Your task to perform on an android device: turn pop-ups on in chrome Image 0: 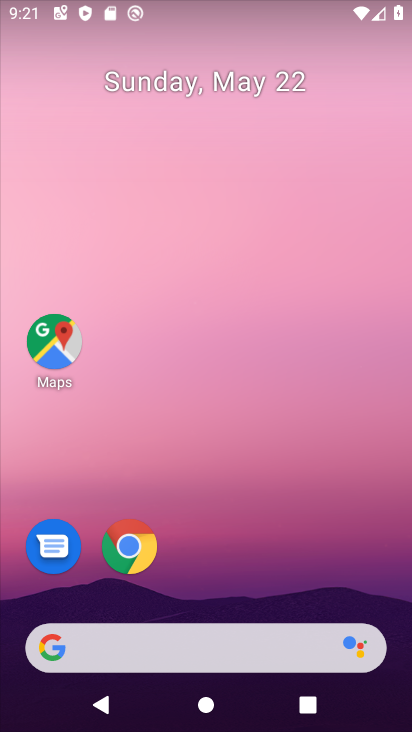
Step 0: click (183, 164)
Your task to perform on an android device: turn pop-ups on in chrome Image 1: 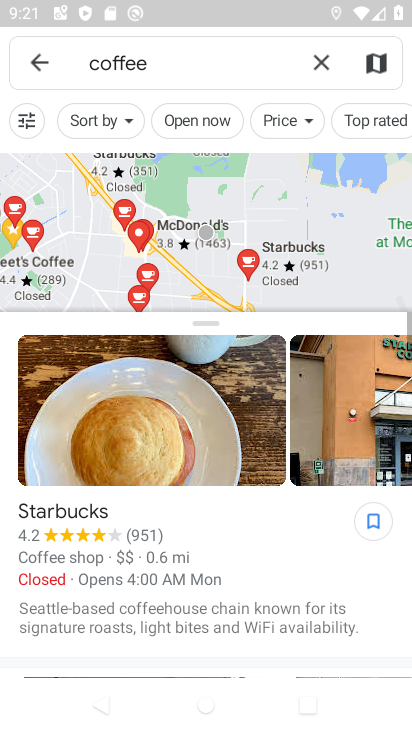
Step 1: click (138, 643)
Your task to perform on an android device: turn pop-ups on in chrome Image 2: 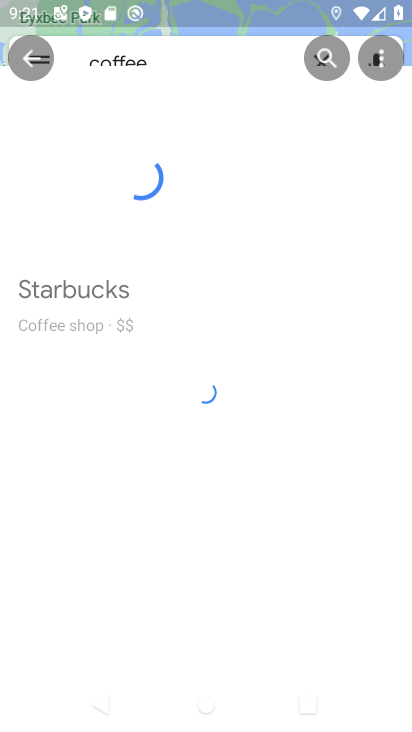
Step 2: drag from (177, 499) to (287, 126)
Your task to perform on an android device: turn pop-ups on in chrome Image 3: 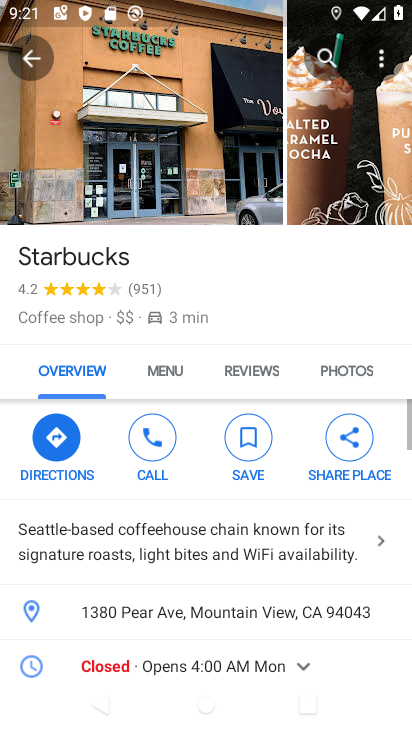
Step 3: press home button
Your task to perform on an android device: turn pop-ups on in chrome Image 4: 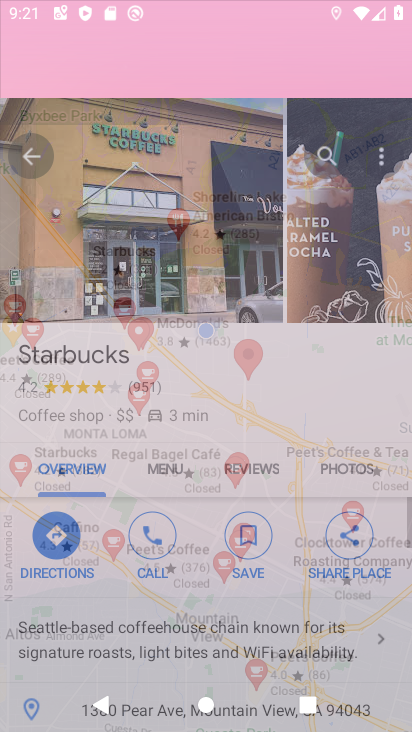
Step 4: drag from (188, 625) to (243, 159)
Your task to perform on an android device: turn pop-ups on in chrome Image 5: 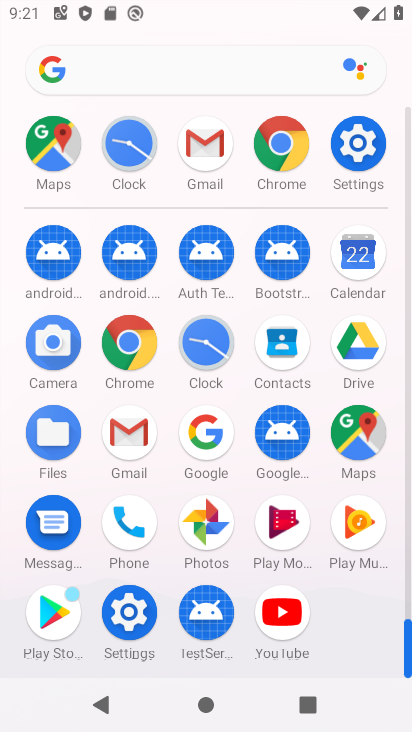
Step 5: click (283, 144)
Your task to perform on an android device: turn pop-ups on in chrome Image 6: 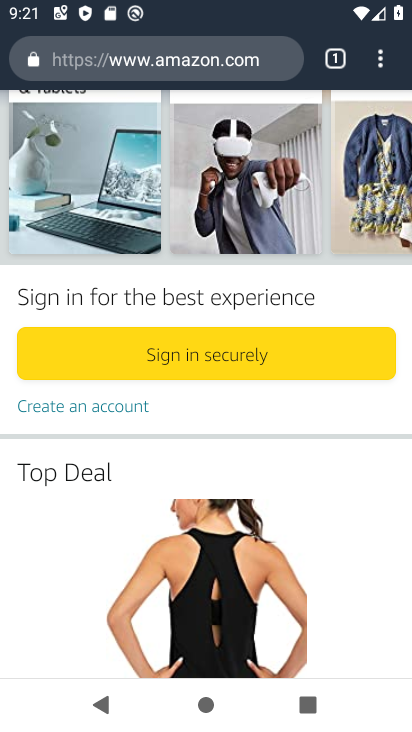
Step 6: click (161, 66)
Your task to perform on an android device: turn pop-ups on in chrome Image 7: 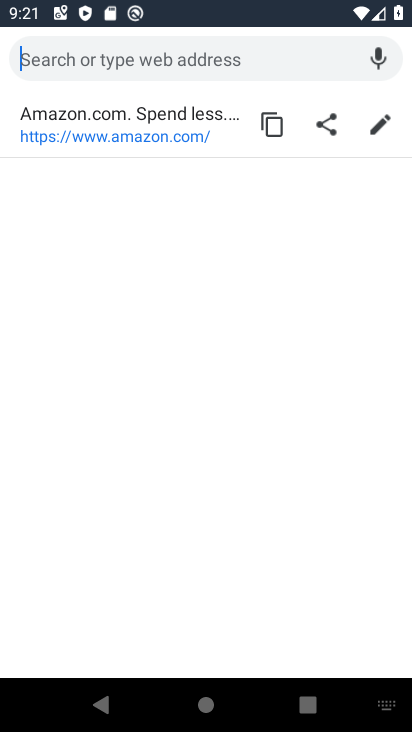
Step 7: click (132, 56)
Your task to perform on an android device: turn pop-ups on in chrome Image 8: 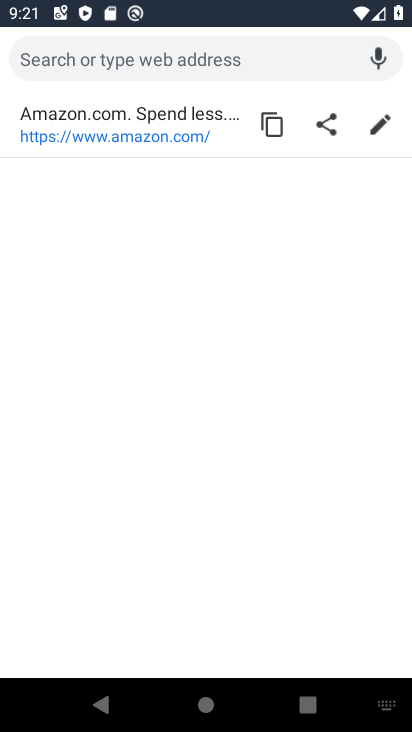
Step 8: click (264, 472)
Your task to perform on an android device: turn pop-ups on in chrome Image 9: 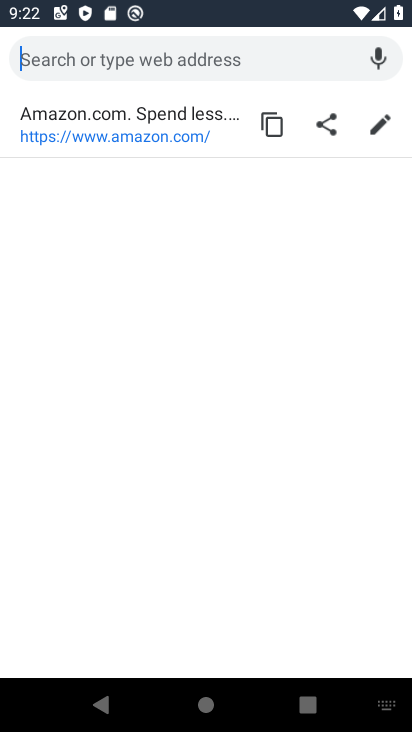
Step 9: press back button
Your task to perform on an android device: turn pop-ups on in chrome Image 10: 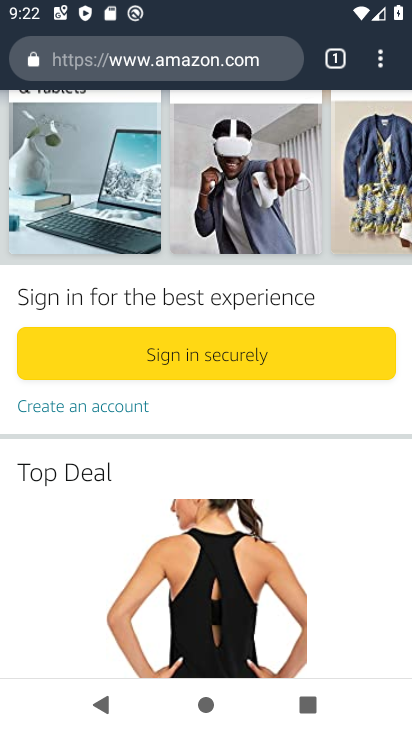
Step 10: click (382, 54)
Your task to perform on an android device: turn pop-ups on in chrome Image 11: 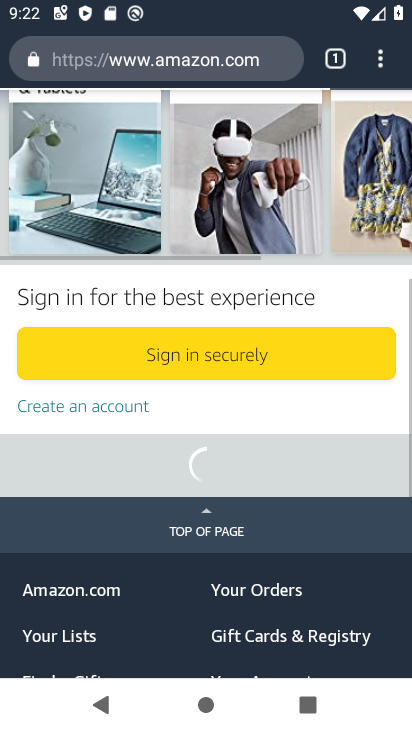
Step 11: click (382, 54)
Your task to perform on an android device: turn pop-ups on in chrome Image 12: 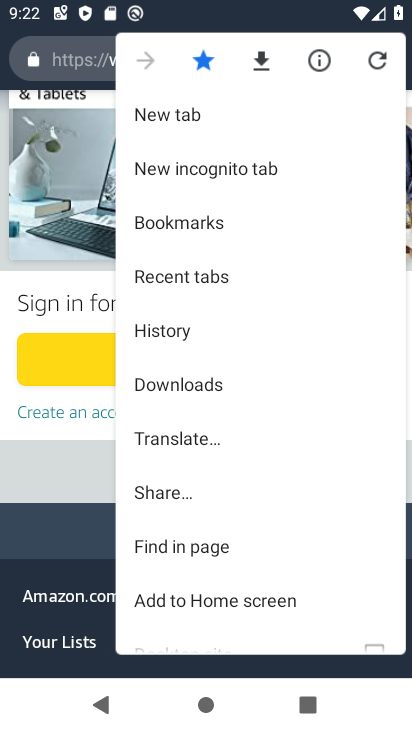
Step 12: drag from (191, 538) to (290, 138)
Your task to perform on an android device: turn pop-ups on in chrome Image 13: 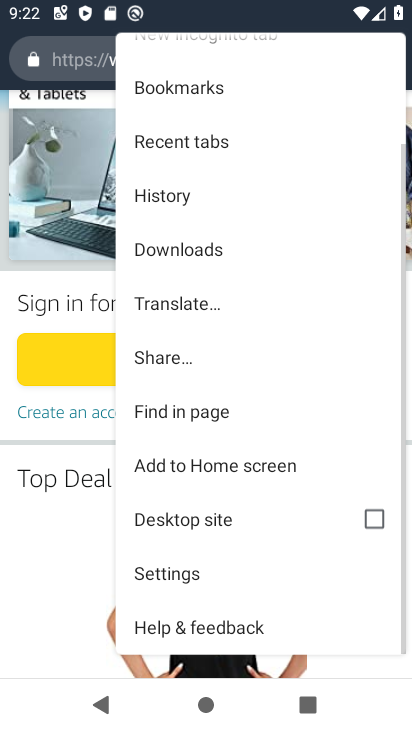
Step 13: click (188, 563)
Your task to perform on an android device: turn pop-ups on in chrome Image 14: 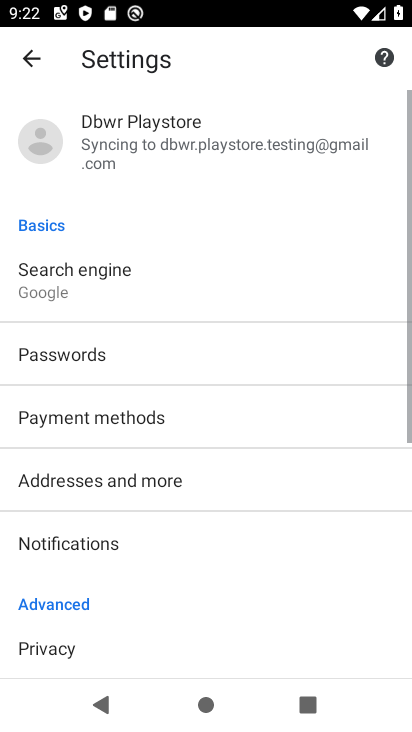
Step 14: drag from (312, 555) to (308, 193)
Your task to perform on an android device: turn pop-ups on in chrome Image 15: 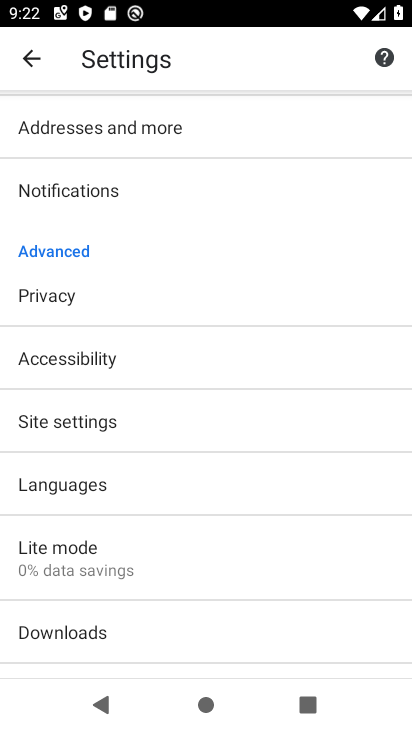
Step 15: click (146, 426)
Your task to perform on an android device: turn pop-ups on in chrome Image 16: 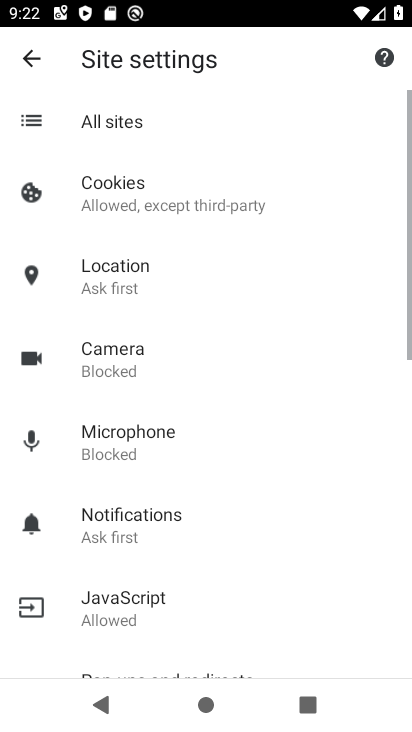
Step 16: drag from (219, 608) to (280, 148)
Your task to perform on an android device: turn pop-ups on in chrome Image 17: 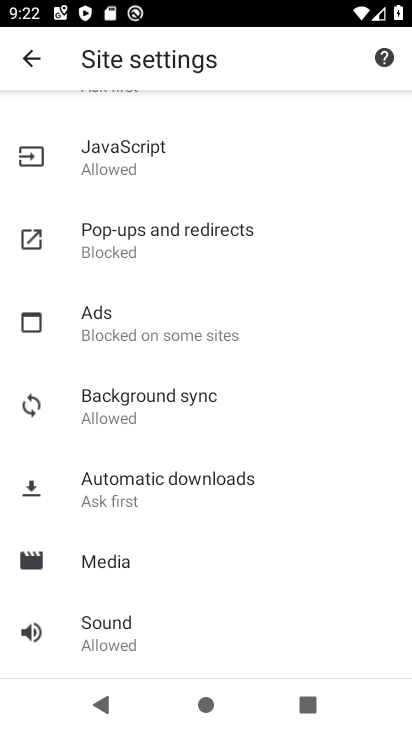
Step 17: click (188, 236)
Your task to perform on an android device: turn pop-ups on in chrome Image 18: 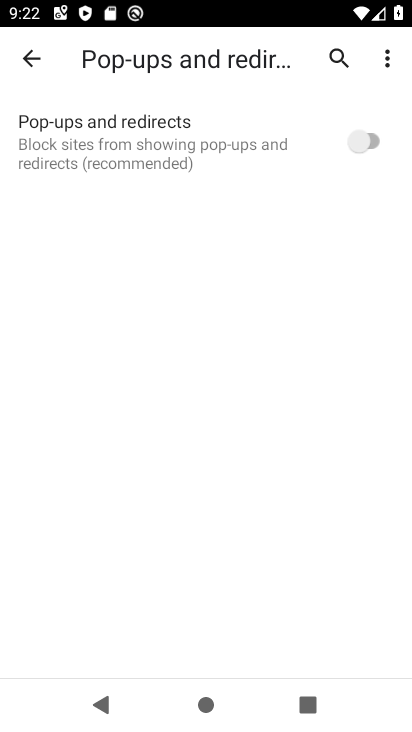
Step 18: drag from (265, 546) to (343, 213)
Your task to perform on an android device: turn pop-ups on in chrome Image 19: 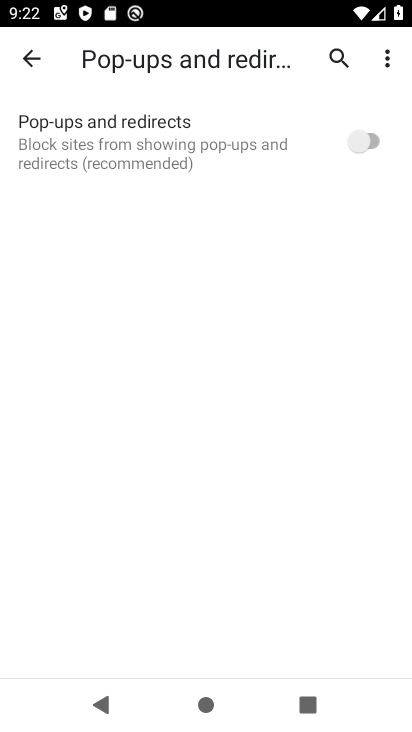
Step 19: click (292, 146)
Your task to perform on an android device: turn pop-ups on in chrome Image 20: 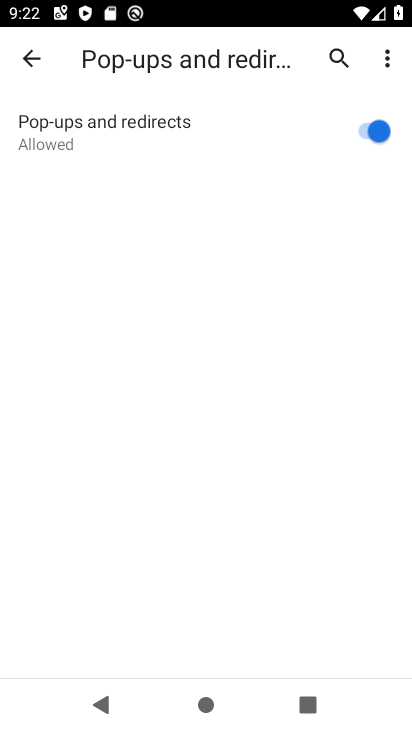
Step 20: task complete